Your task to perform on an android device: turn on notifications settings in the gmail app Image 0: 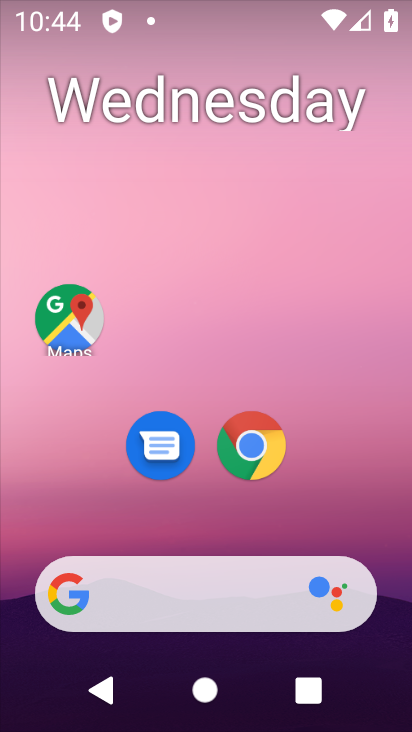
Step 0: drag from (380, 635) to (406, 204)
Your task to perform on an android device: turn on notifications settings in the gmail app Image 1: 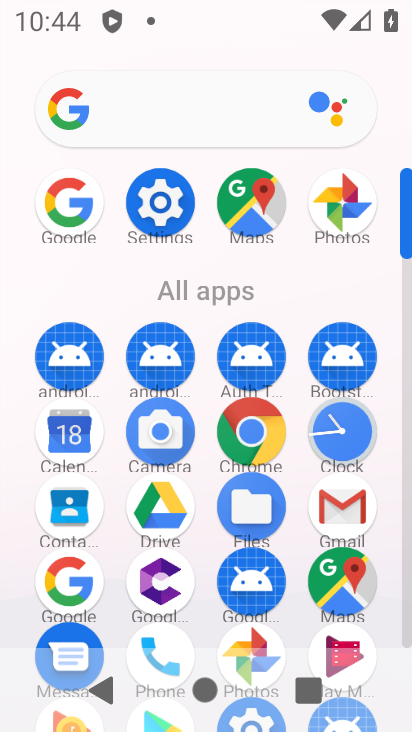
Step 1: click (349, 527)
Your task to perform on an android device: turn on notifications settings in the gmail app Image 2: 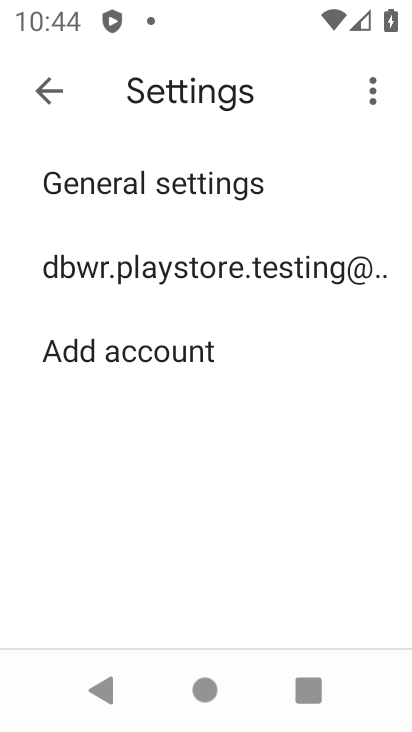
Step 2: click (265, 275)
Your task to perform on an android device: turn on notifications settings in the gmail app Image 3: 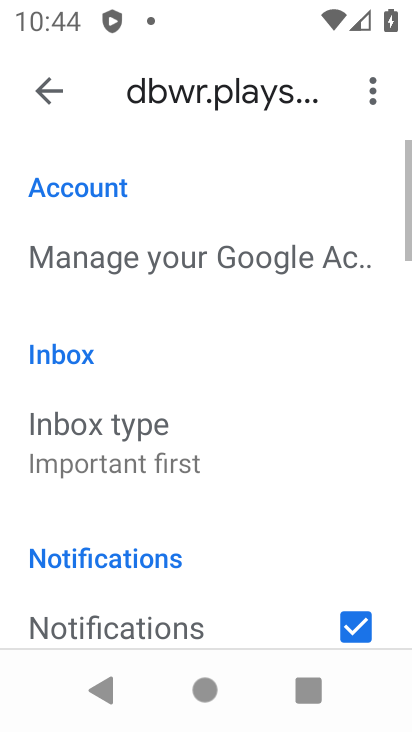
Step 3: task complete